Your task to perform on an android device: Go to eBay Image 0: 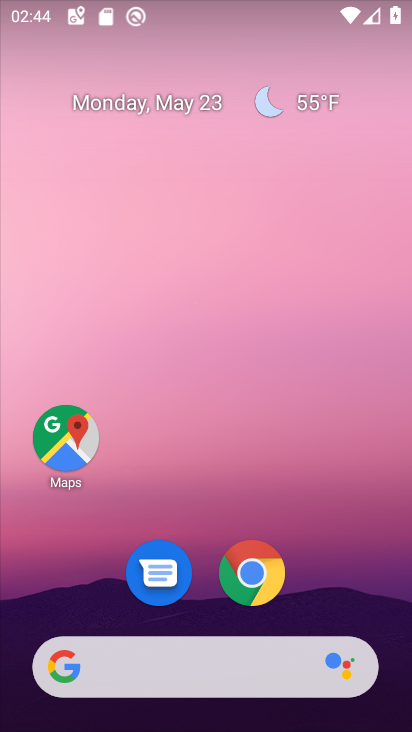
Step 0: click (248, 579)
Your task to perform on an android device: Go to eBay Image 1: 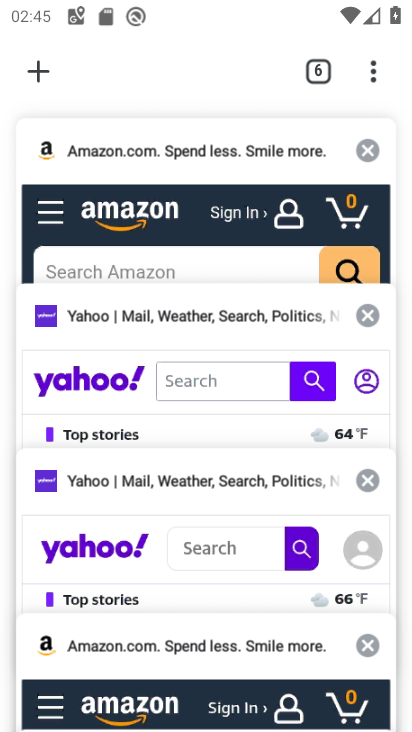
Step 1: drag from (222, 578) to (258, 166)
Your task to perform on an android device: Go to eBay Image 2: 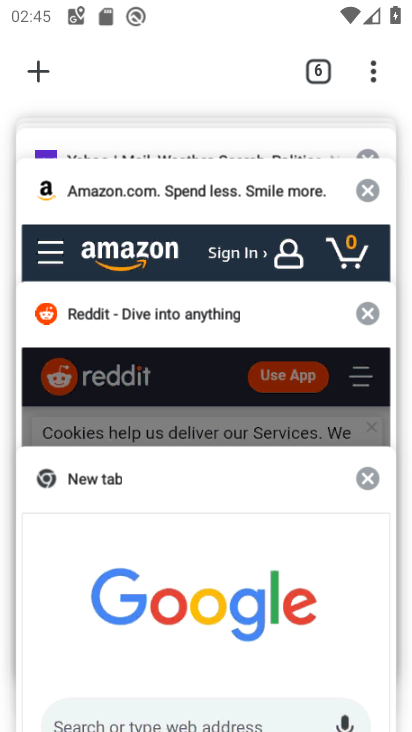
Step 2: drag from (240, 582) to (257, 177)
Your task to perform on an android device: Go to eBay Image 3: 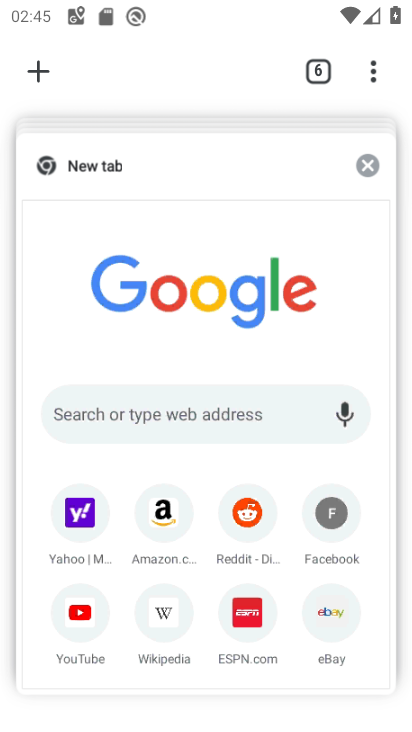
Step 3: click (280, 270)
Your task to perform on an android device: Go to eBay Image 4: 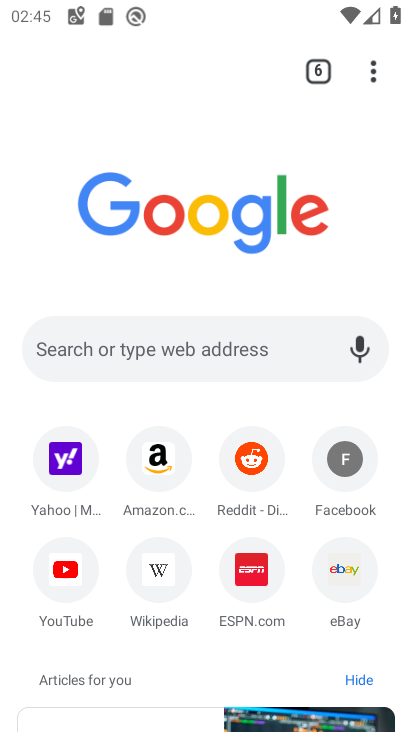
Step 4: click (340, 567)
Your task to perform on an android device: Go to eBay Image 5: 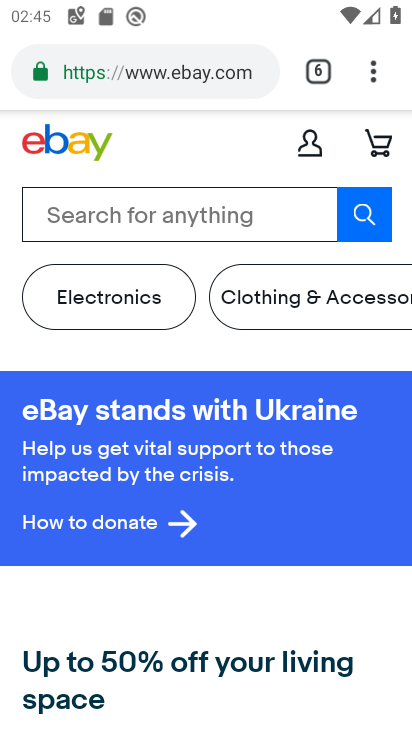
Step 5: task complete